Your task to perform on an android device: Open settings Image 0: 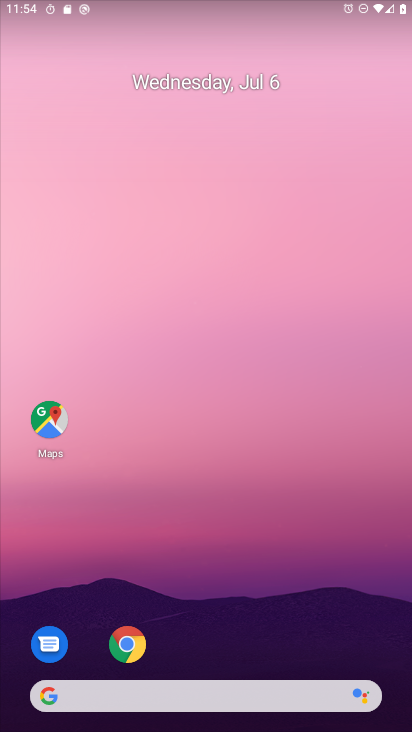
Step 0: drag from (208, 648) to (250, 111)
Your task to perform on an android device: Open settings Image 1: 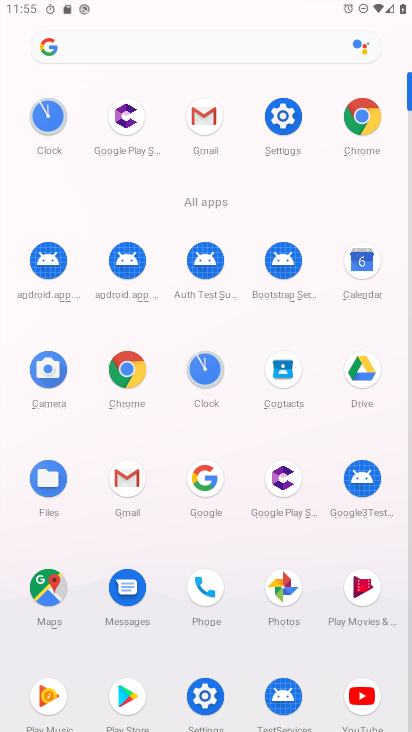
Step 1: click (278, 113)
Your task to perform on an android device: Open settings Image 2: 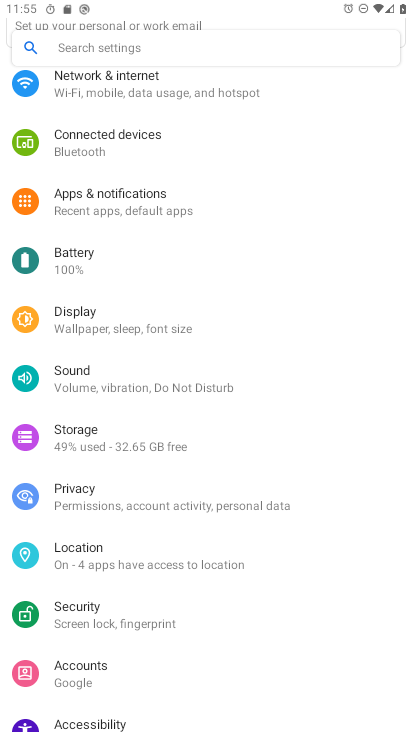
Step 2: task complete